Your task to perform on an android device: turn off airplane mode Image 0: 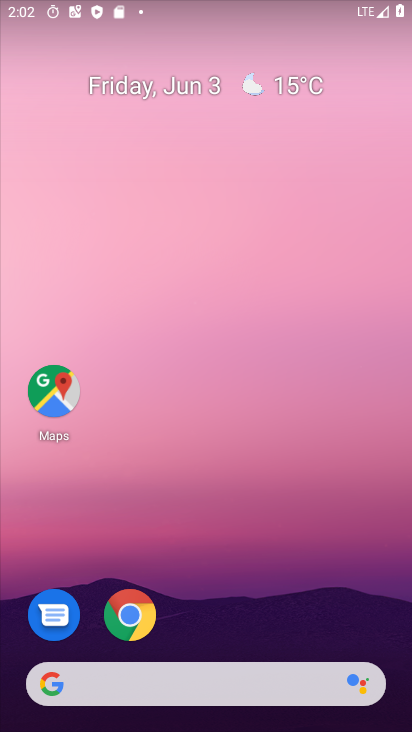
Step 0: drag from (205, 496) to (269, 105)
Your task to perform on an android device: turn off airplane mode Image 1: 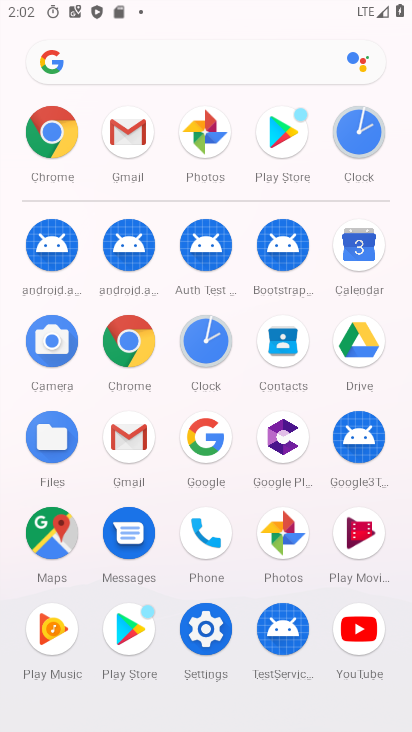
Step 1: click (188, 631)
Your task to perform on an android device: turn off airplane mode Image 2: 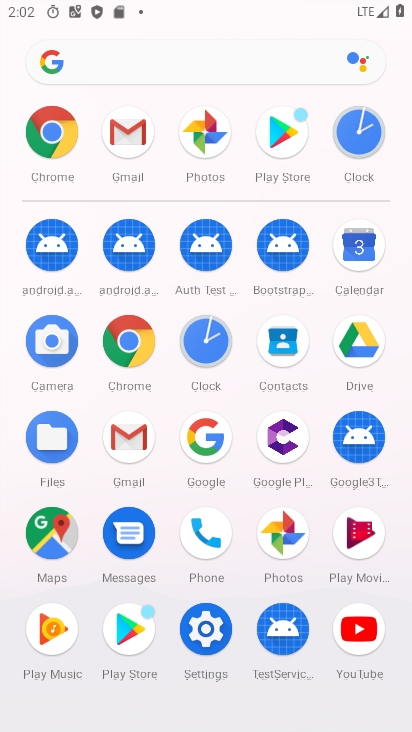
Step 2: click (188, 631)
Your task to perform on an android device: turn off airplane mode Image 3: 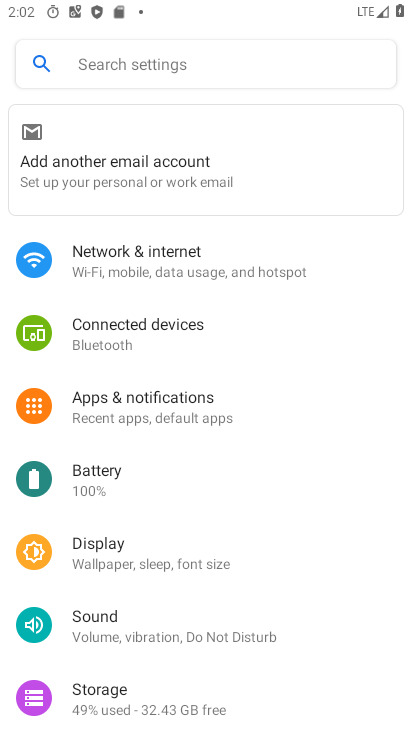
Step 3: click (159, 267)
Your task to perform on an android device: turn off airplane mode Image 4: 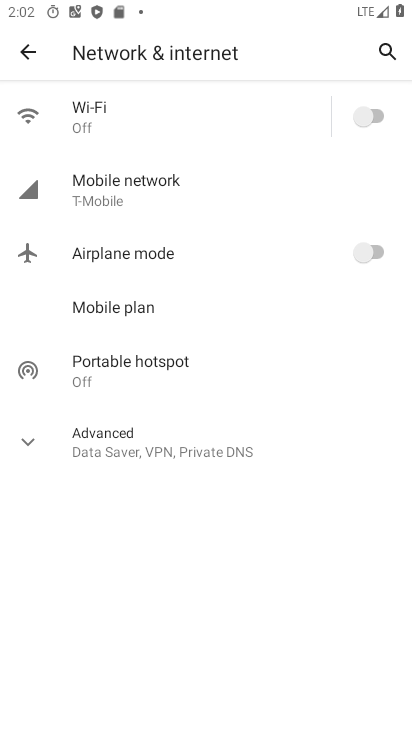
Step 4: task complete